Your task to perform on an android device: set default search engine in the chrome app Image 0: 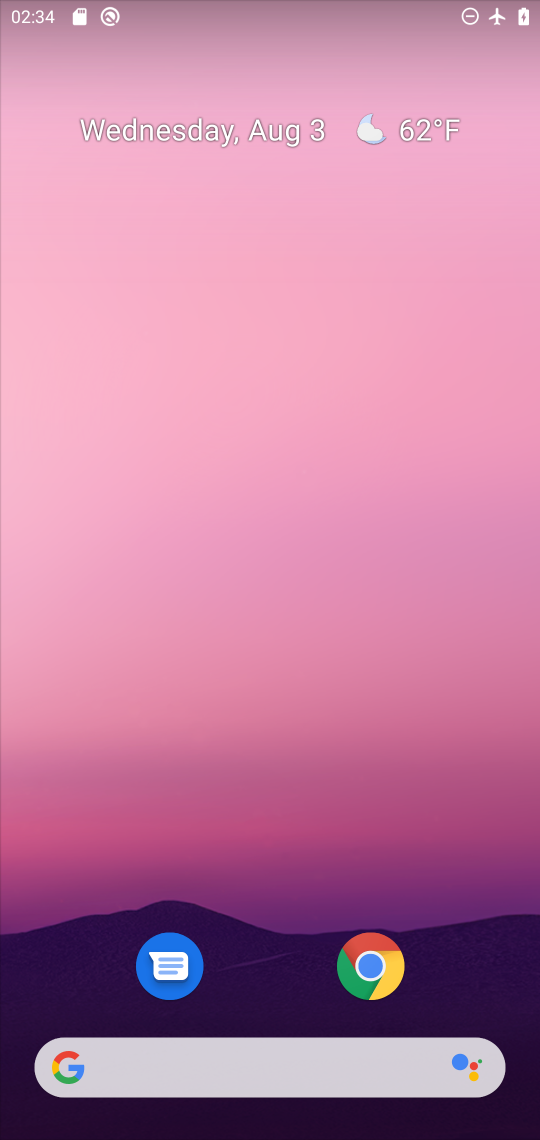
Step 0: click (363, 960)
Your task to perform on an android device: set default search engine in the chrome app Image 1: 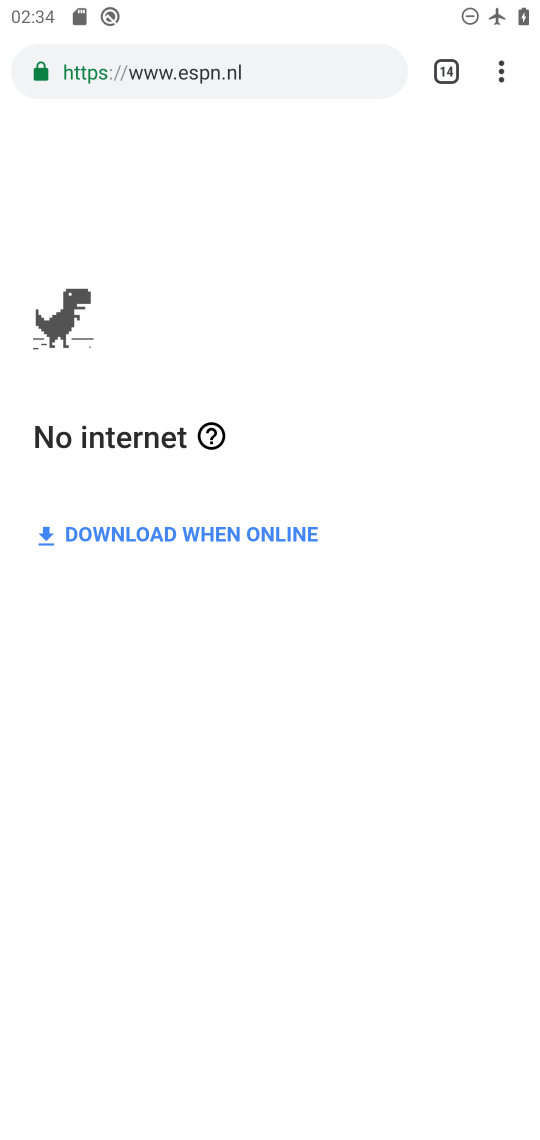
Step 1: click (505, 76)
Your task to perform on an android device: set default search engine in the chrome app Image 2: 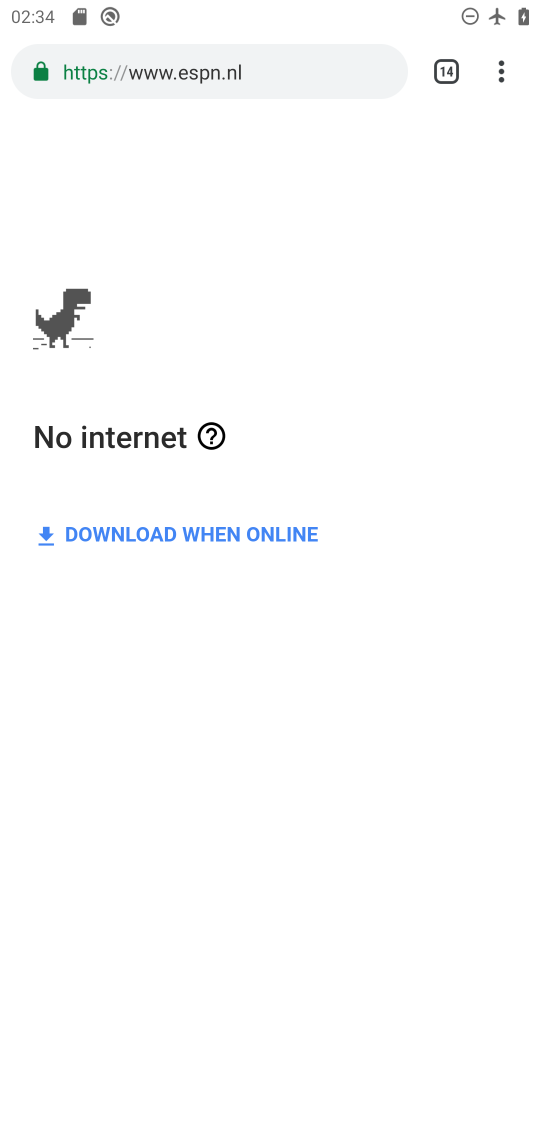
Step 2: click (499, 80)
Your task to perform on an android device: set default search engine in the chrome app Image 3: 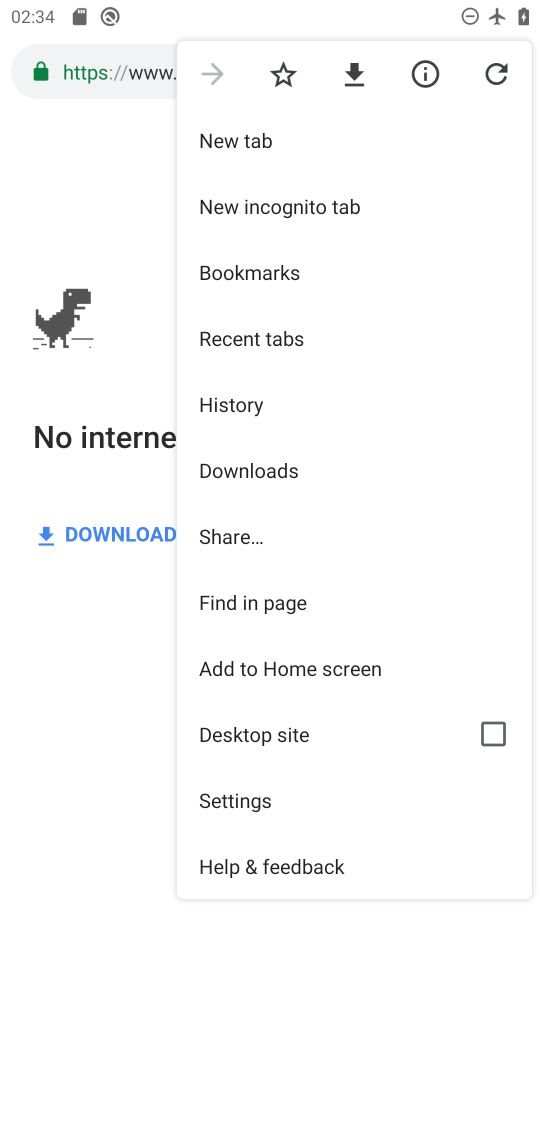
Step 3: click (283, 800)
Your task to perform on an android device: set default search engine in the chrome app Image 4: 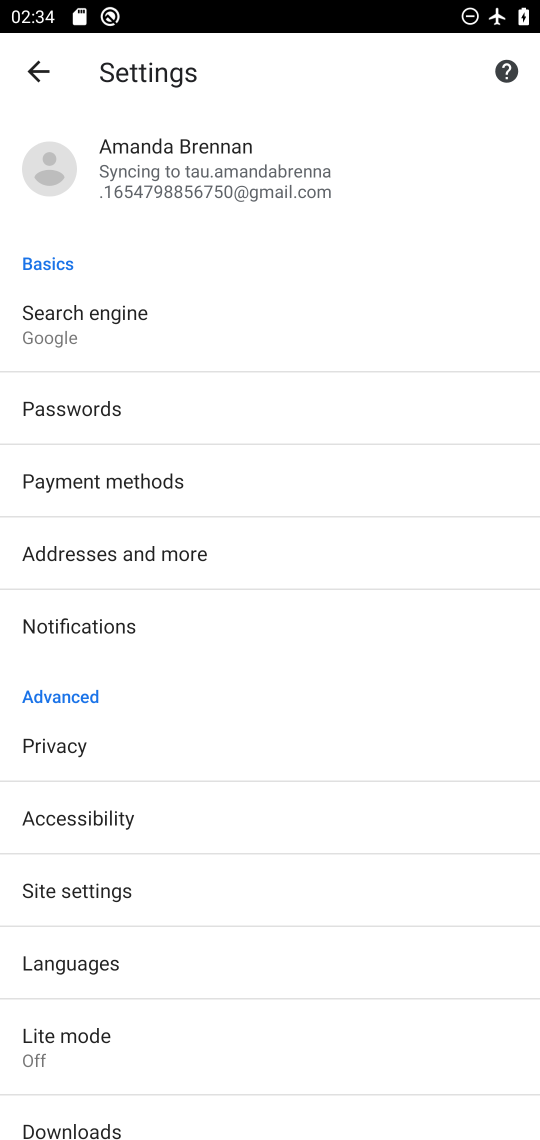
Step 4: click (129, 313)
Your task to perform on an android device: set default search engine in the chrome app Image 5: 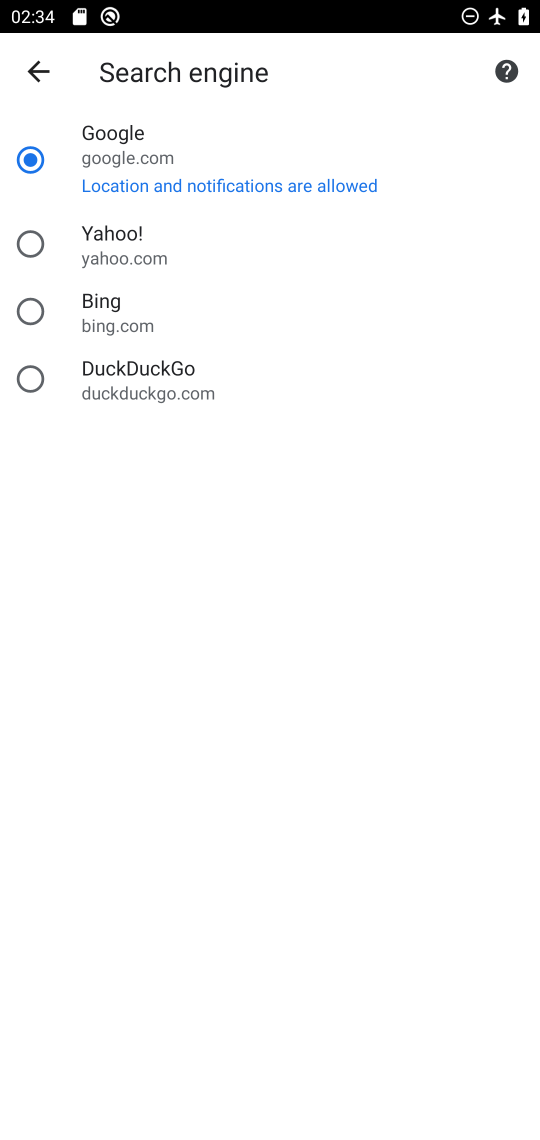
Step 5: task complete